Your task to perform on an android device: open wifi settings Image 0: 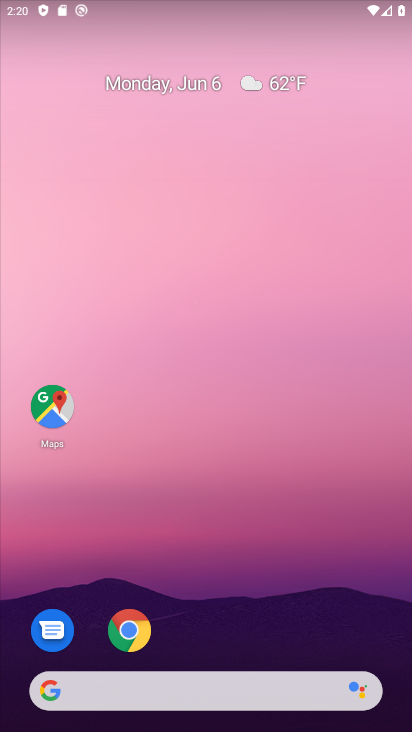
Step 0: drag from (278, 643) to (283, 163)
Your task to perform on an android device: open wifi settings Image 1: 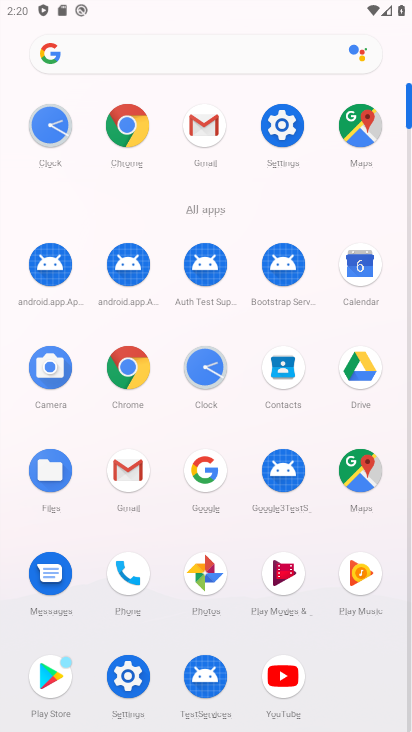
Step 1: drag from (261, 9) to (266, 477)
Your task to perform on an android device: open wifi settings Image 2: 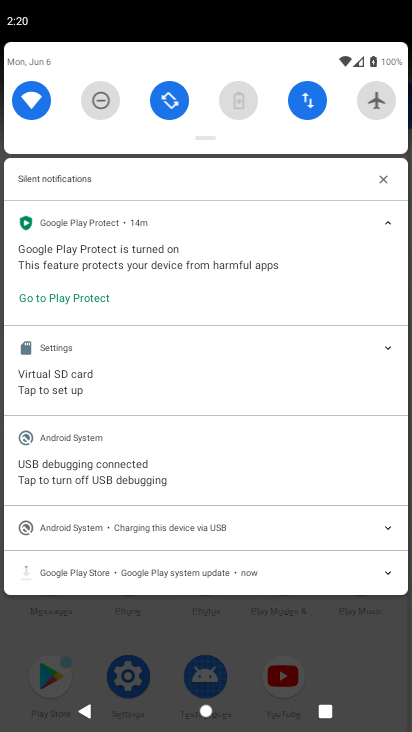
Step 2: click (43, 84)
Your task to perform on an android device: open wifi settings Image 3: 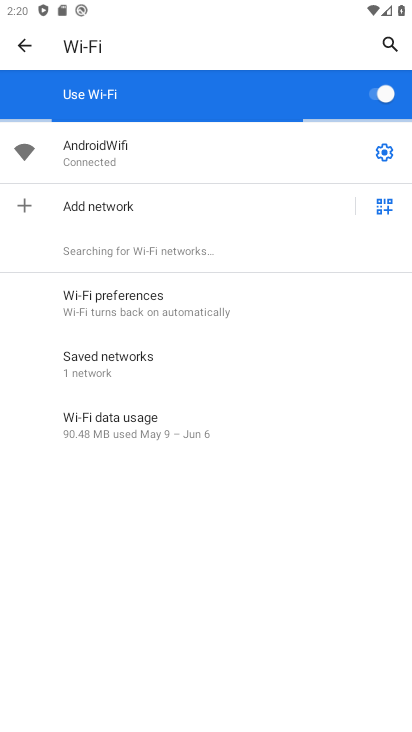
Step 3: task complete